Your task to perform on an android device: Go to Maps Image 0: 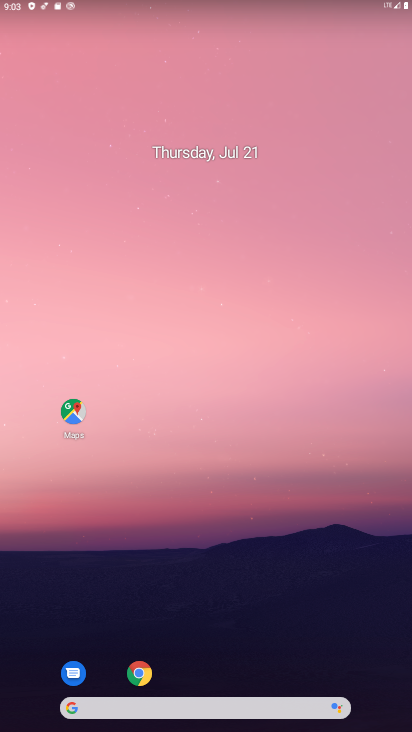
Step 0: drag from (249, 651) to (252, 207)
Your task to perform on an android device: Go to Maps Image 1: 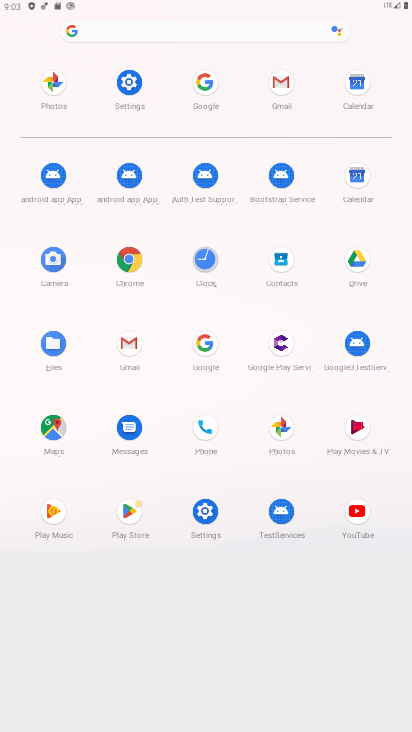
Step 1: click (58, 428)
Your task to perform on an android device: Go to Maps Image 2: 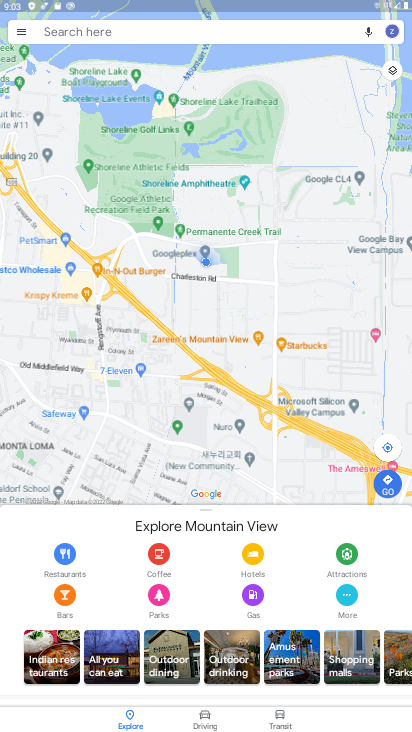
Step 2: task complete